Your task to perform on an android device: turn vacation reply on in the gmail app Image 0: 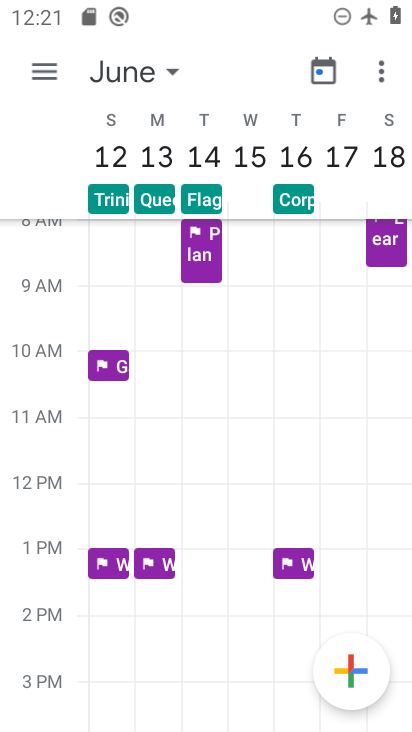
Step 0: press home button
Your task to perform on an android device: turn vacation reply on in the gmail app Image 1: 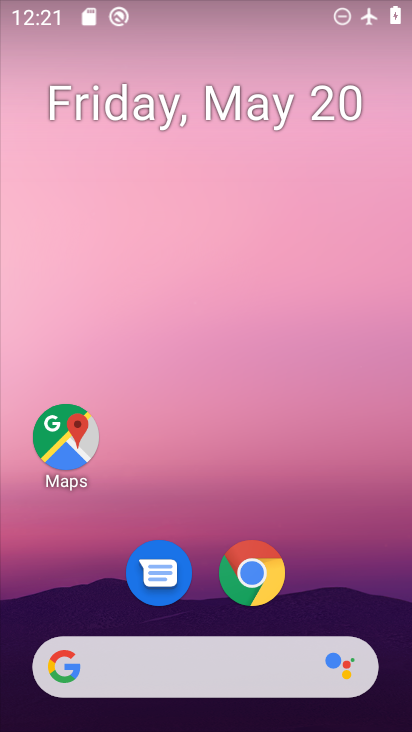
Step 1: drag from (194, 720) to (176, 151)
Your task to perform on an android device: turn vacation reply on in the gmail app Image 2: 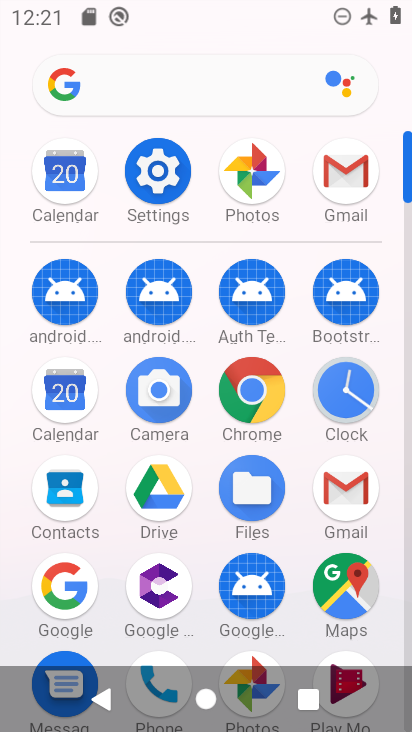
Step 2: click (340, 495)
Your task to perform on an android device: turn vacation reply on in the gmail app Image 3: 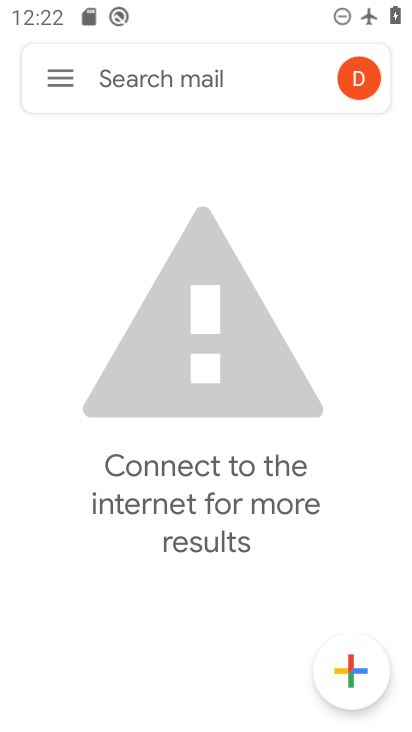
Step 3: click (65, 80)
Your task to perform on an android device: turn vacation reply on in the gmail app Image 4: 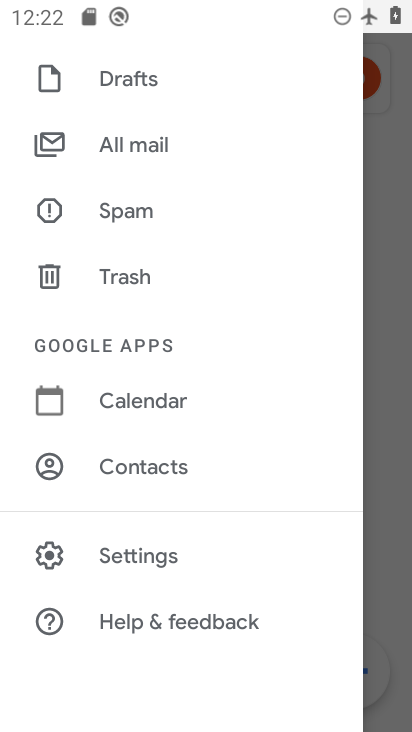
Step 4: click (135, 554)
Your task to perform on an android device: turn vacation reply on in the gmail app Image 5: 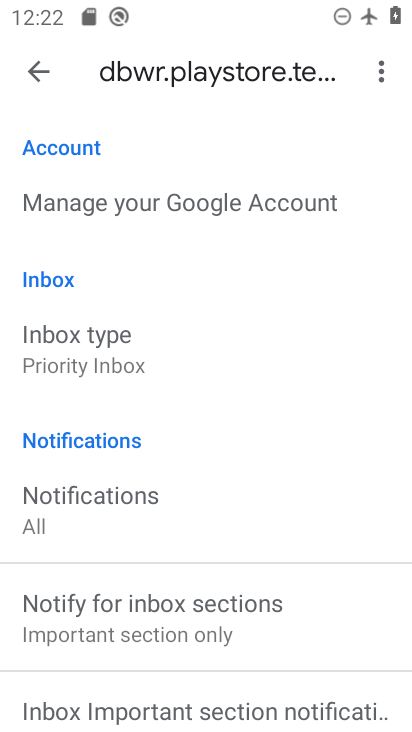
Step 5: drag from (149, 664) to (131, 253)
Your task to perform on an android device: turn vacation reply on in the gmail app Image 6: 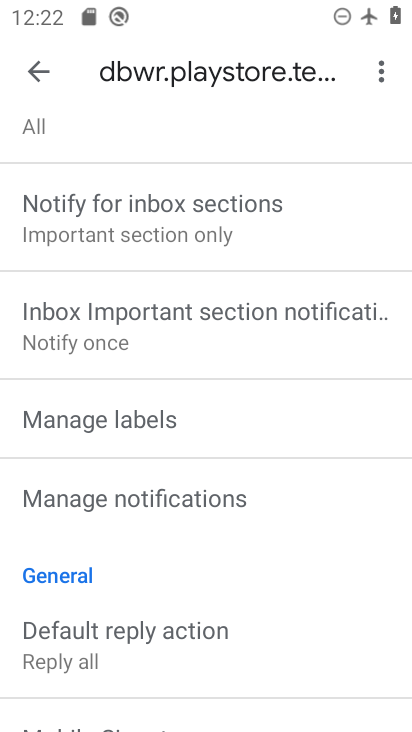
Step 6: drag from (152, 678) to (157, 423)
Your task to perform on an android device: turn vacation reply on in the gmail app Image 7: 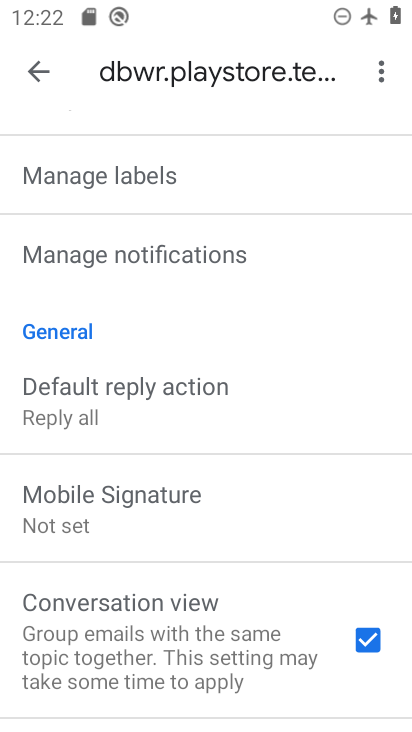
Step 7: drag from (158, 680) to (132, 302)
Your task to perform on an android device: turn vacation reply on in the gmail app Image 8: 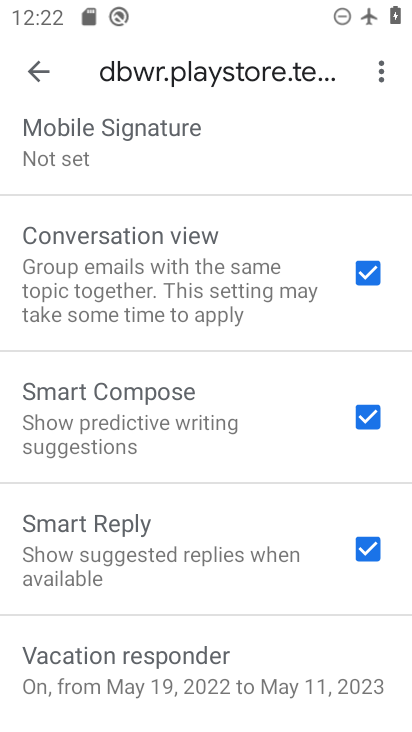
Step 8: drag from (178, 643) to (136, 238)
Your task to perform on an android device: turn vacation reply on in the gmail app Image 9: 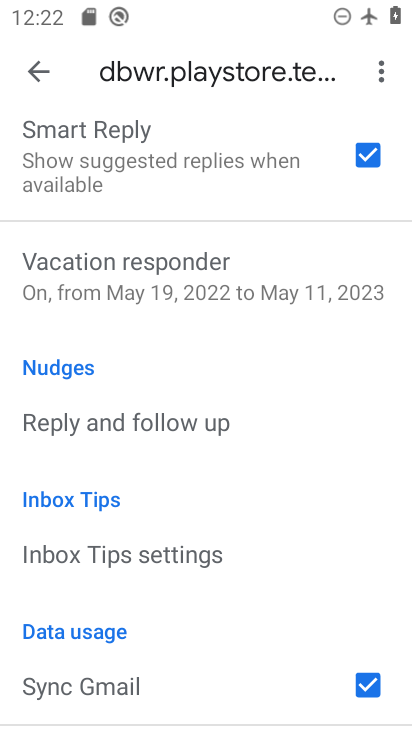
Step 9: click (177, 280)
Your task to perform on an android device: turn vacation reply on in the gmail app Image 10: 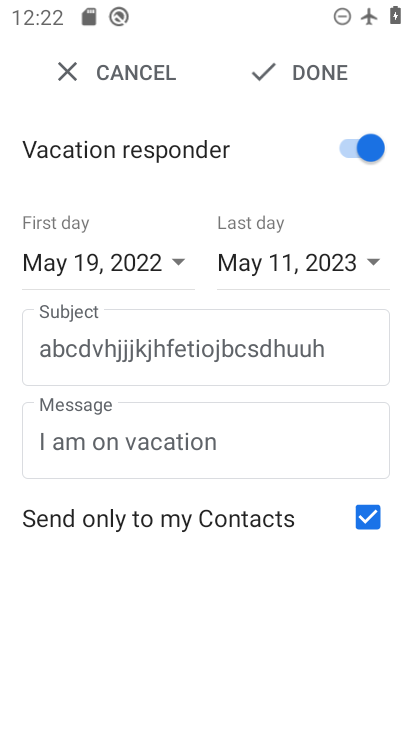
Step 10: task complete